Your task to perform on an android device: Open the stopwatch Image 0: 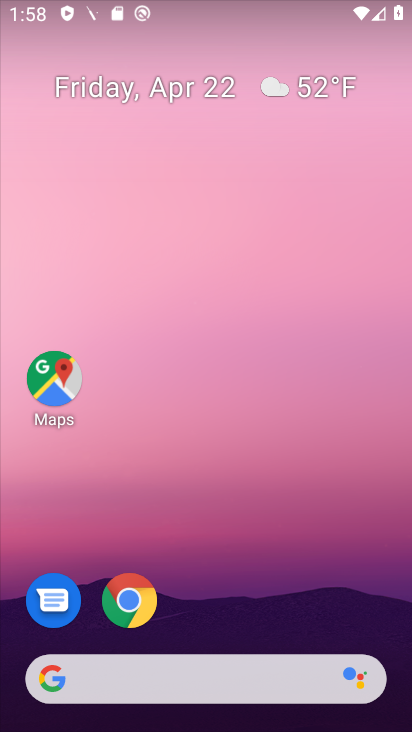
Step 0: drag from (199, 565) to (123, 29)
Your task to perform on an android device: Open the stopwatch Image 1: 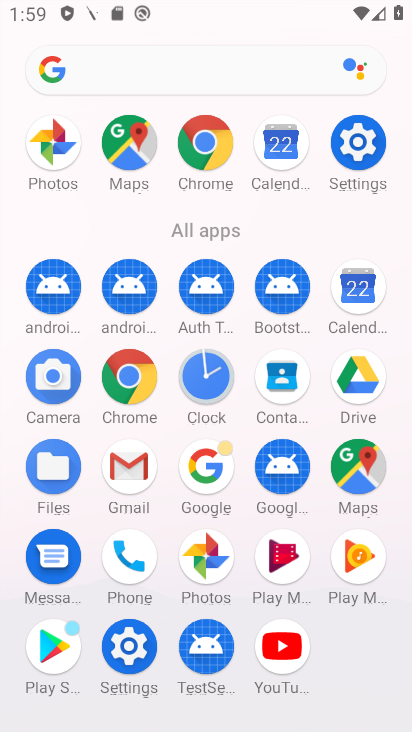
Step 1: drag from (4, 378) to (22, 251)
Your task to perform on an android device: Open the stopwatch Image 2: 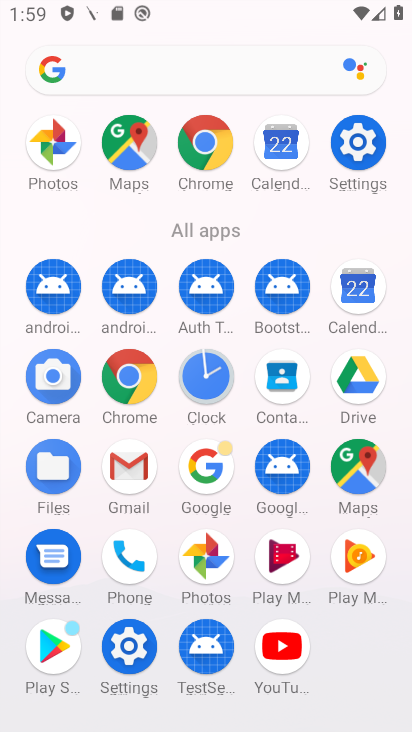
Step 2: click (209, 370)
Your task to perform on an android device: Open the stopwatch Image 3: 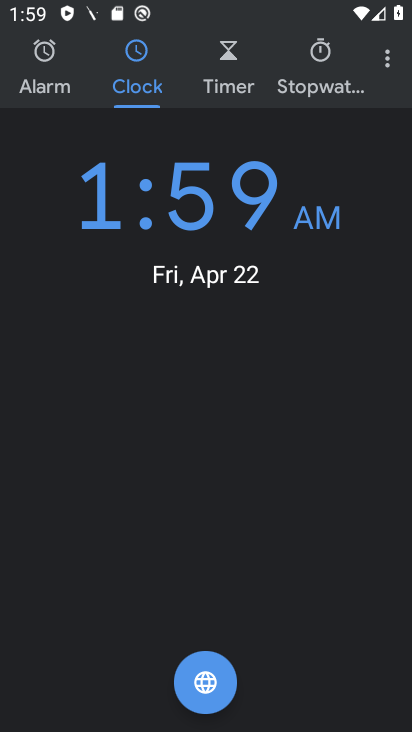
Step 3: click (249, 41)
Your task to perform on an android device: Open the stopwatch Image 4: 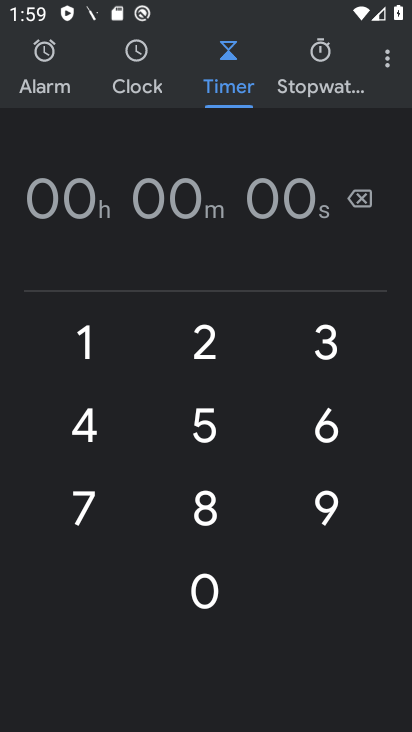
Step 4: click (331, 45)
Your task to perform on an android device: Open the stopwatch Image 5: 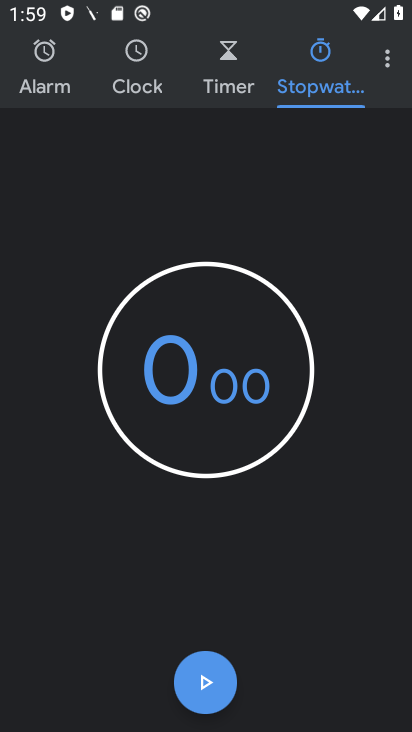
Step 5: task complete